Your task to perform on an android device: Search for sushi restaurants on Maps Image 0: 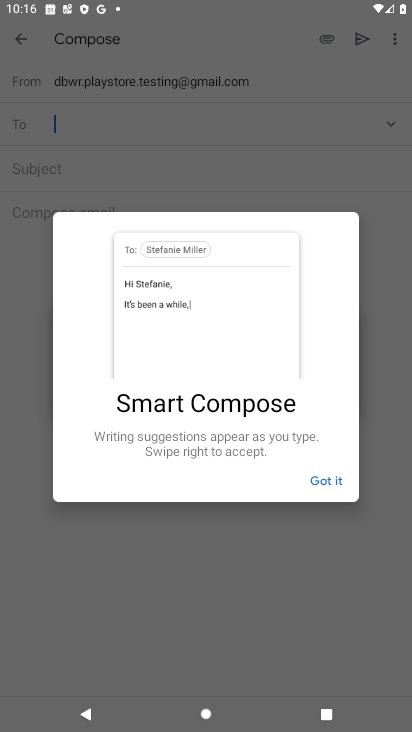
Step 0: press home button
Your task to perform on an android device: Search for sushi restaurants on Maps Image 1: 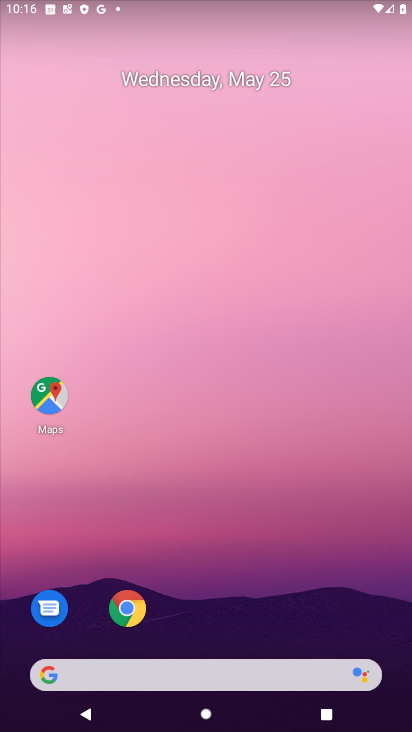
Step 1: click (49, 398)
Your task to perform on an android device: Search for sushi restaurants on Maps Image 2: 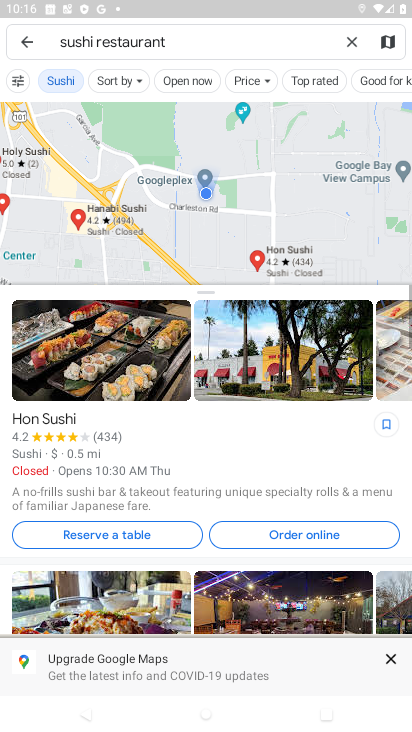
Step 2: task complete